Your task to perform on an android device: turn smart compose on in the gmail app Image 0: 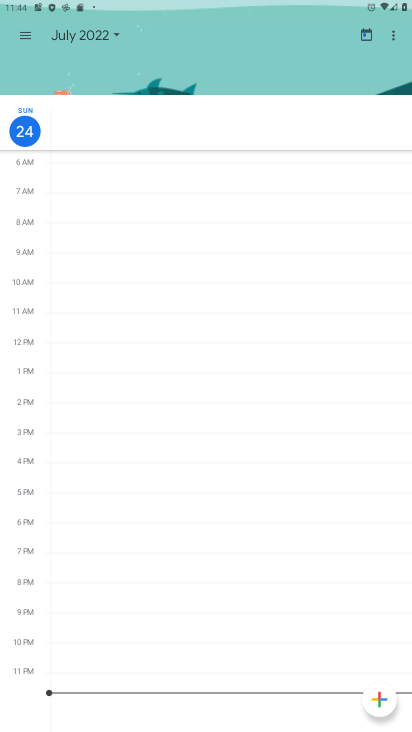
Step 0: drag from (387, 697) to (350, 131)
Your task to perform on an android device: turn smart compose on in the gmail app Image 1: 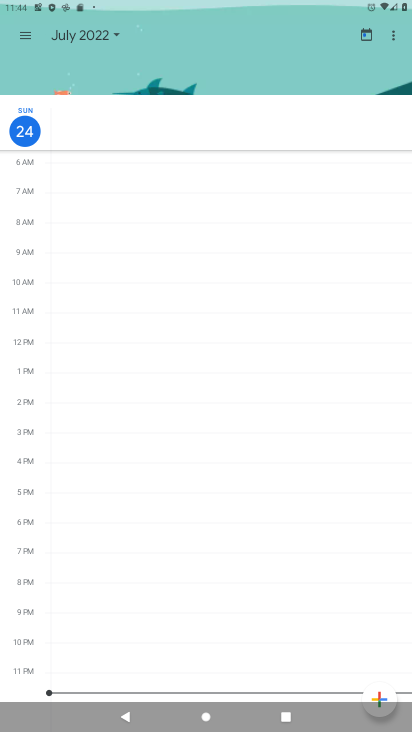
Step 1: press home button
Your task to perform on an android device: turn smart compose on in the gmail app Image 2: 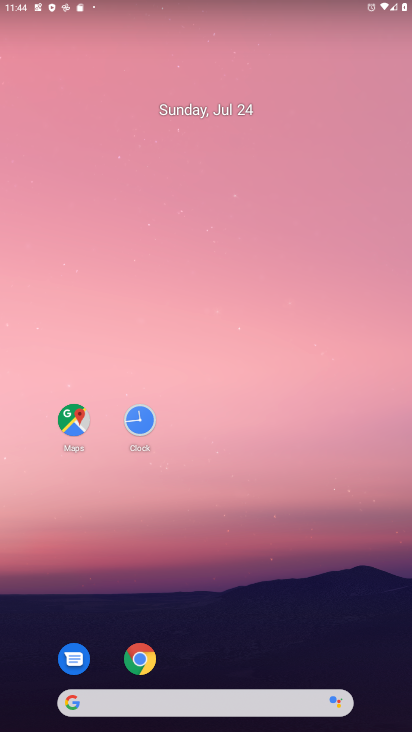
Step 2: drag from (393, 658) to (353, 49)
Your task to perform on an android device: turn smart compose on in the gmail app Image 3: 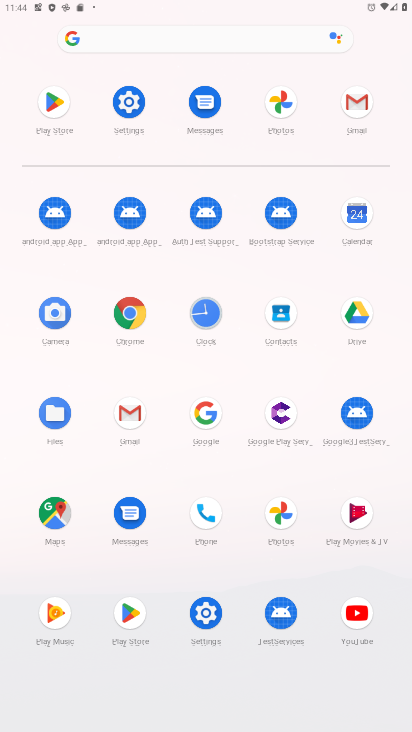
Step 3: click (136, 417)
Your task to perform on an android device: turn smart compose on in the gmail app Image 4: 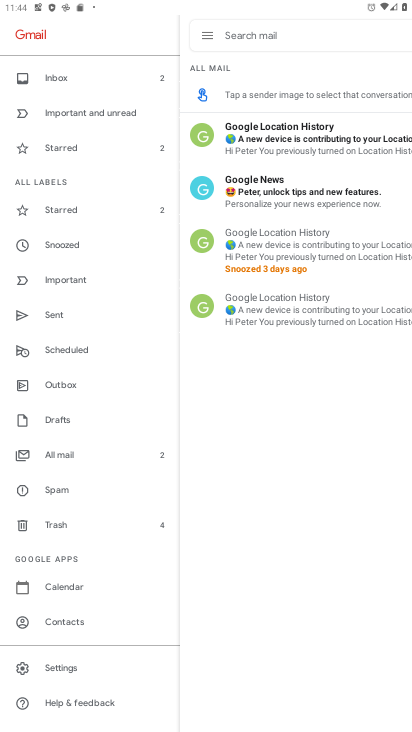
Step 4: click (206, 32)
Your task to perform on an android device: turn smart compose on in the gmail app Image 5: 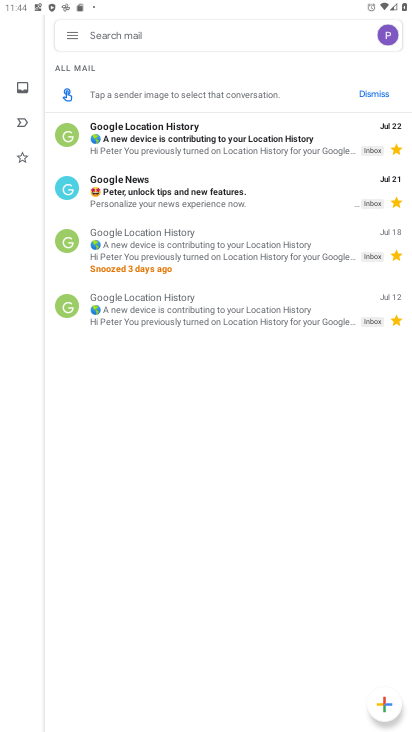
Step 5: click (72, 30)
Your task to perform on an android device: turn smart compose on in the gmail app Image 6: 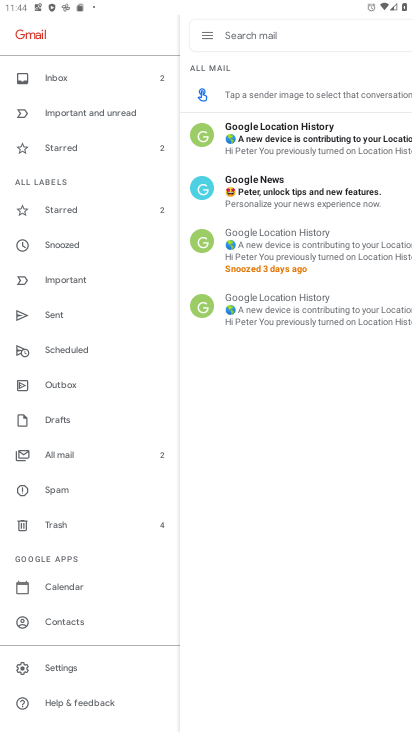
Step 6: click (70, 671)
Your task to perform on an android device: turn smart compose on in the gmail app Image 7: 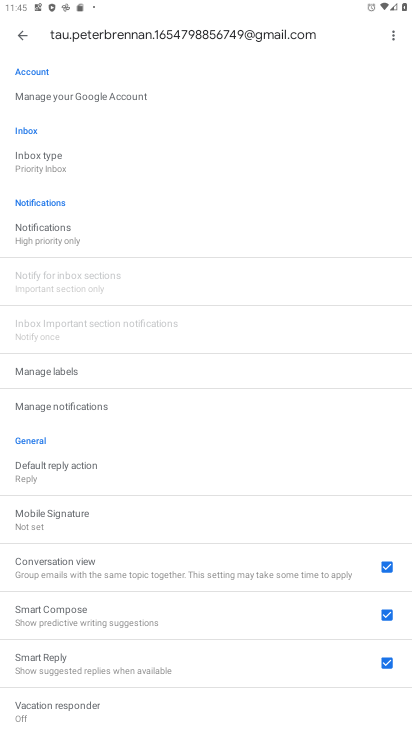
Step 7: task complete